Your task to perform on an android device: change the clock display to analog Image 0: 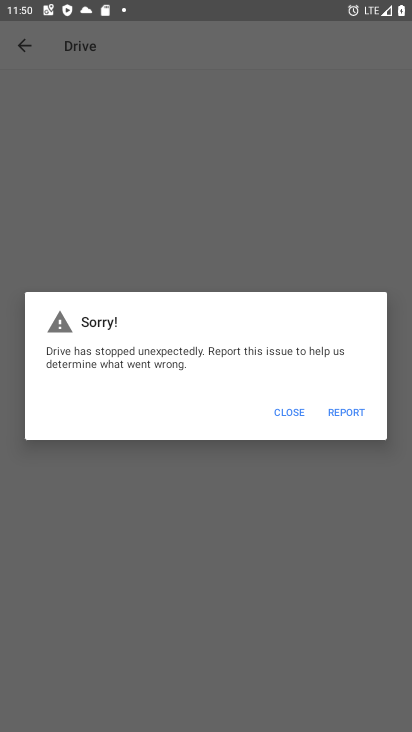
Step 0: press home button
Your task to perform on an android device: change the clock display to analog Image 1: 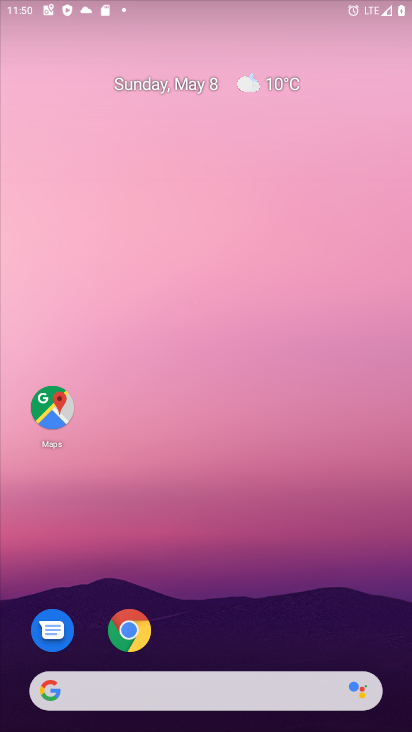
Step 1: drag from (323, 609) to (310, 47)
Your task to perform on an android device: change the clock display to analog Image 2: 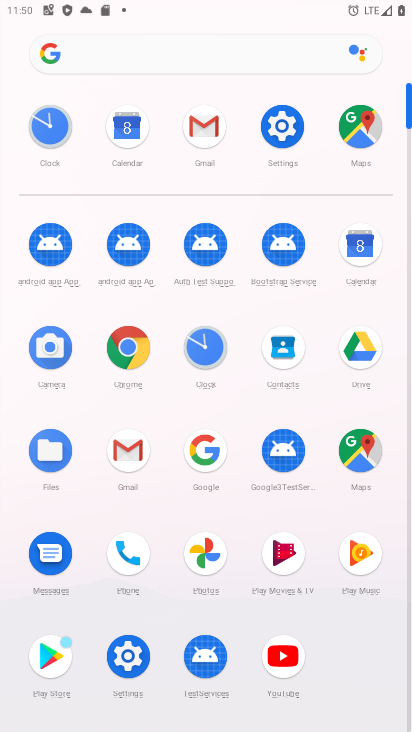
Step 2: click (209, 368)
Your task to perform on an android device: change the clock display to analog Image 3: 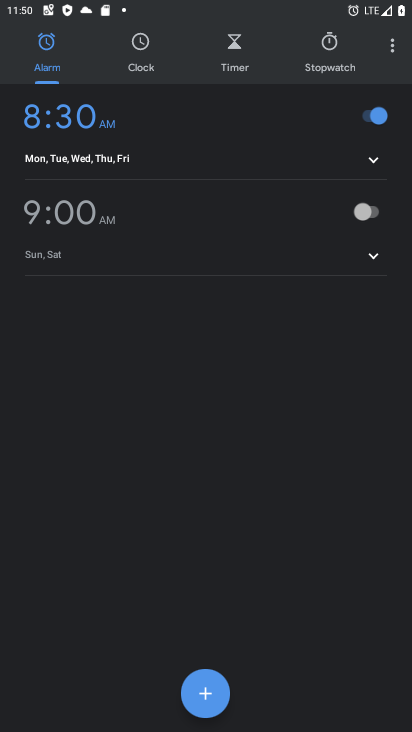
Step 3: click (383, 46)
Your task to perform on an android device: change the clock display to analog Image 4: 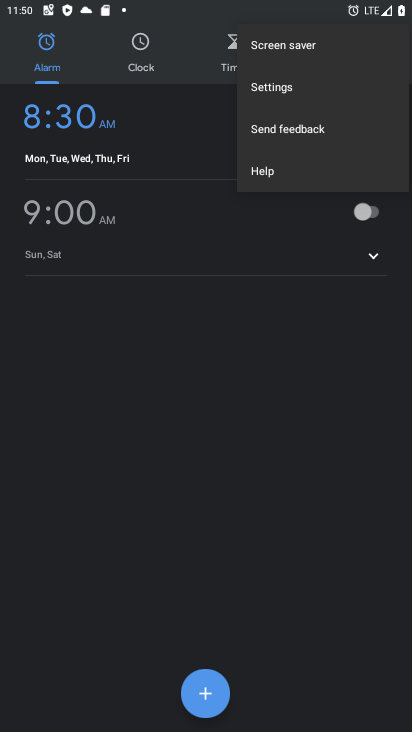
Step 4: click (307, 77)
Your task to perform on an android device: change the clock display to analog Image 5: 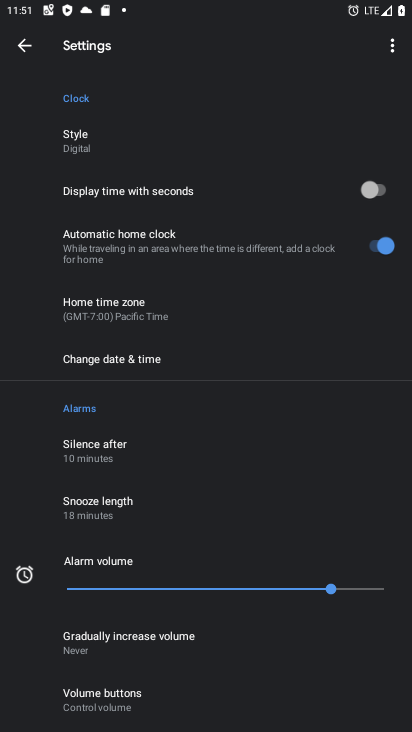
Step 5: click (131, 131)
Your task to perform on an android device: change the clock display to analog Image 6: 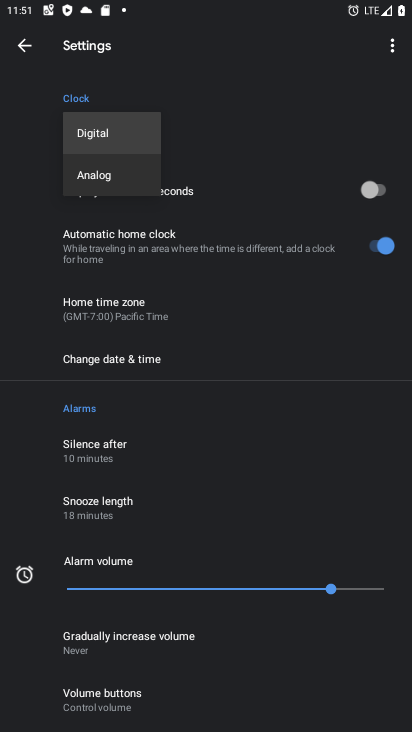
Step 6: click (110, 171)
Your task to perform on an android device: change the clock display to analog Image 7: 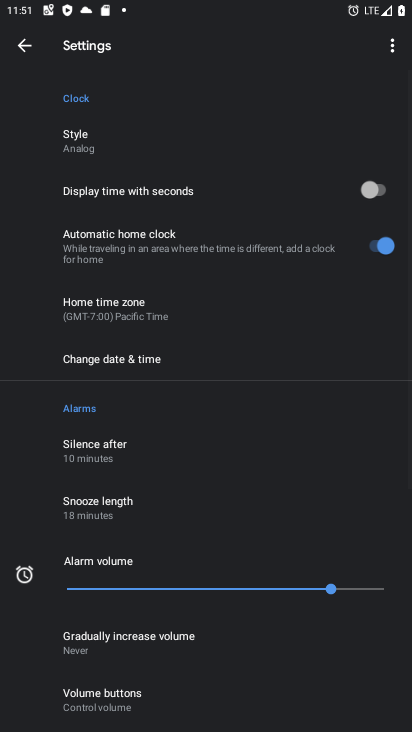
Step 7: task complete